Your task to perform on an android device: set default search engine in the chrome app Image 0: 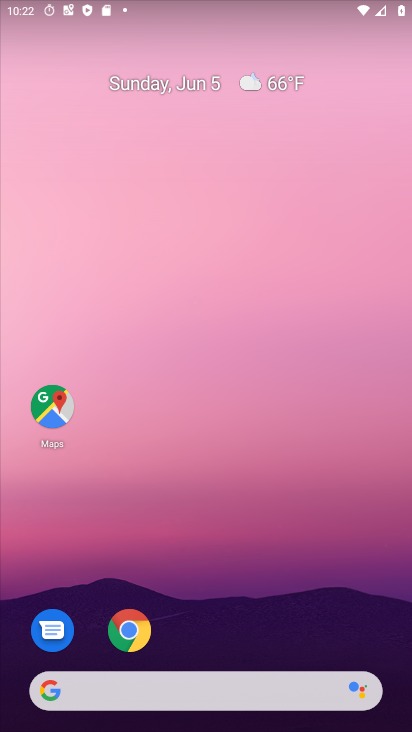
Step 0: click (131, 631)
Your task to perform on an android device: set default search engine in the chrome app Image 1: 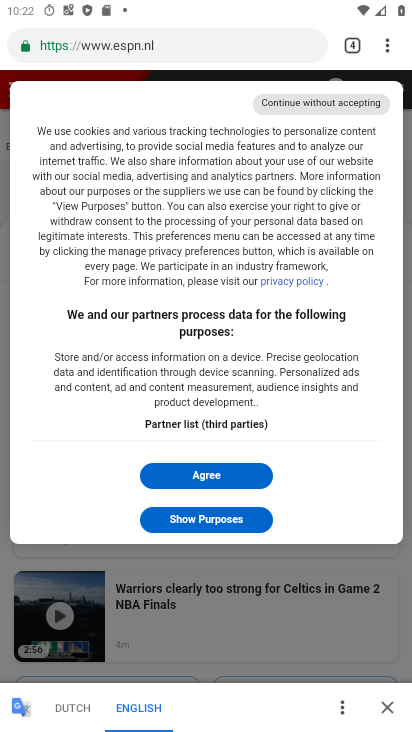
Step 1: click (388, 51)
Your task to perform on an android device: set default search engine in the chrome app Image 2: 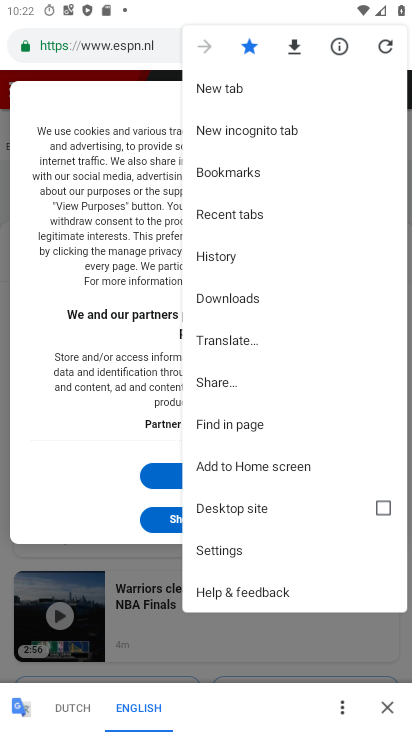
Step 2: click (223, 549)
Your task to perform on an android device: set default search engine in the chrome app Image 3: 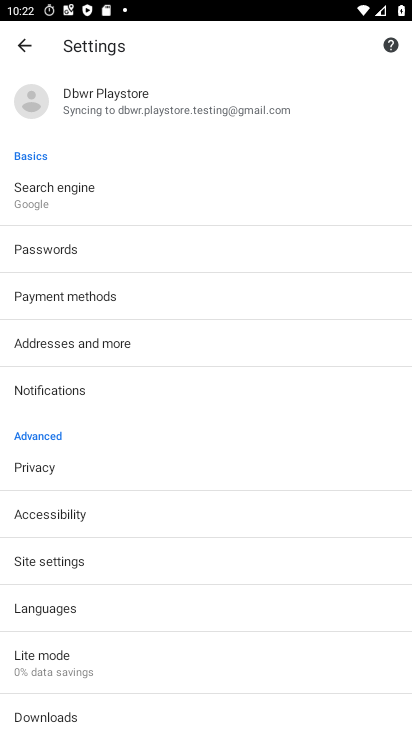
Step 3: click (53, 204)
Your task to perform on an android device: set default search engine in the chrome app Image 4: 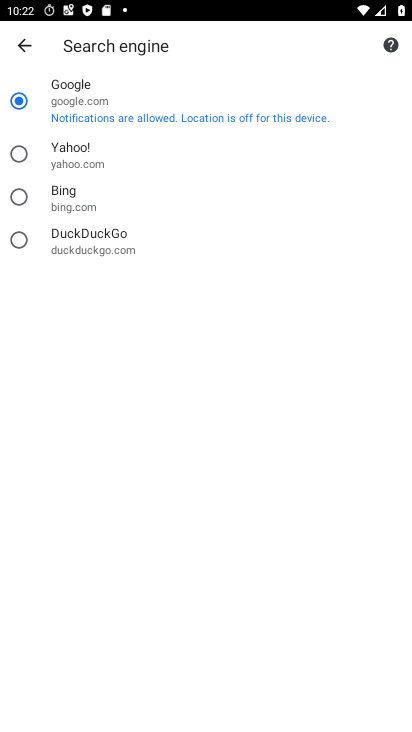
Step 4: click (23, 152)
Your task to perform on an android device: set default search engine in the chrome app Image 5: 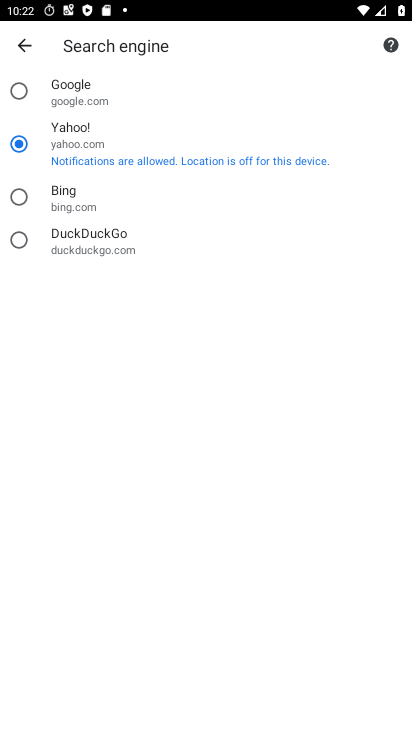
Step 5: task complete